Your task to perform on an android device: turn vacation reply on in the gmail app Image 0: 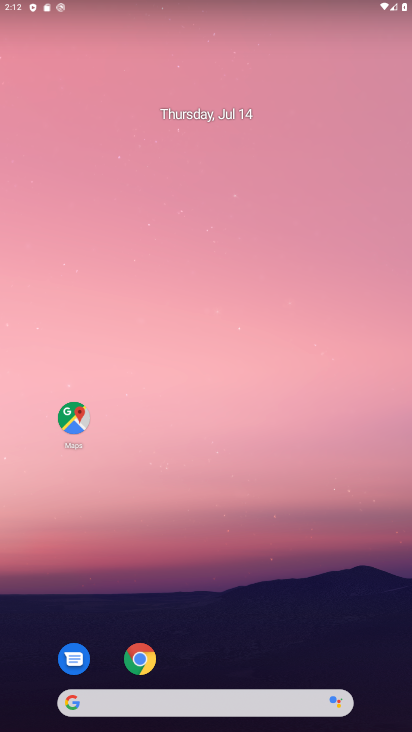
Step 0: press home button
Your task to perform on an android device: turn vacation reply on in the gmail app Image 1: 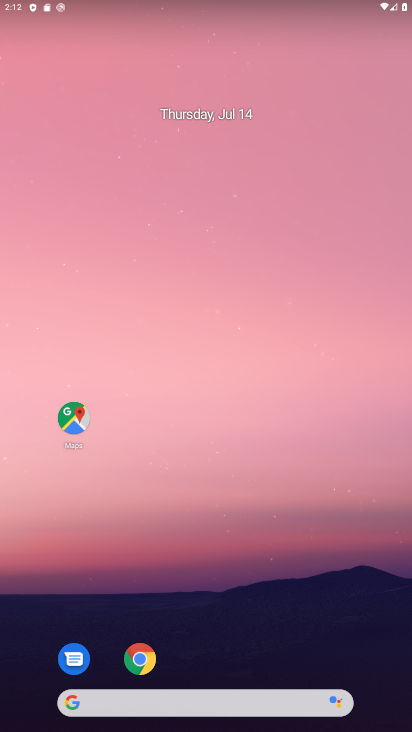
Step 1: drag from (246, 656) to (240, 563)
Your task to perform on an android device: turn vacation reply on in the gmail app Image 2: 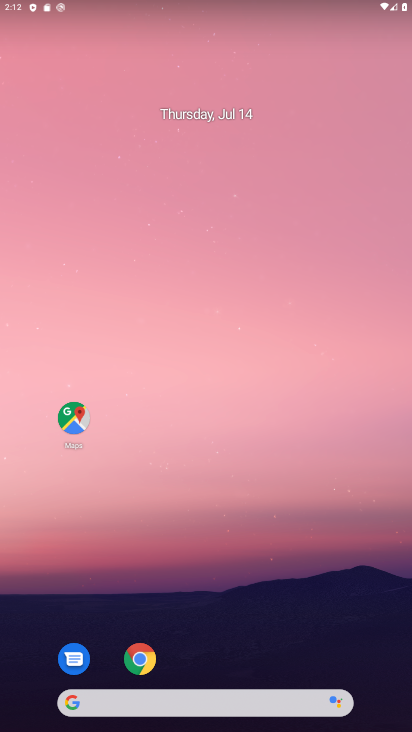
Step 2: drag from (255, 635) to (245, 118)
Your task to perform on an android device: turn vacation reply on in the gmail app Image 3: 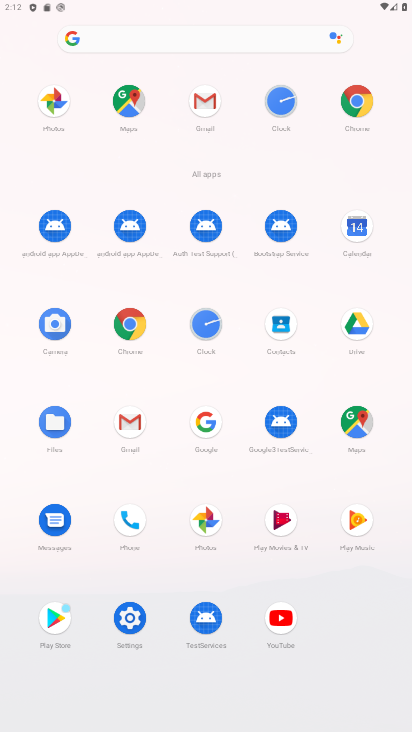
Step 3: click (211, 108)
Your task to perform on an android device: turn vacation reply on in the gmail app Image 4: 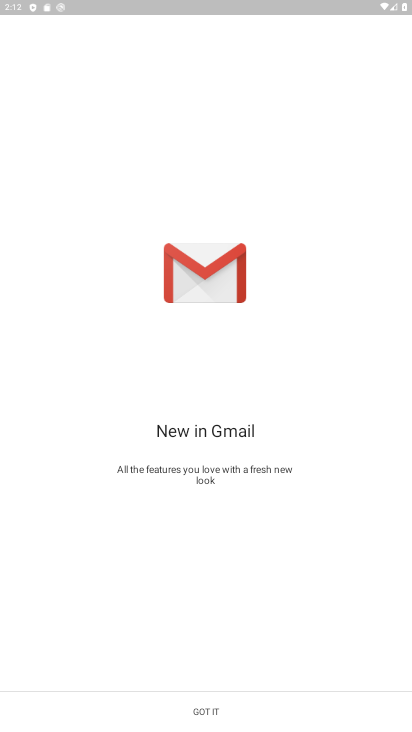
Step 4: click (196, 710)
Your task to perform on an android device: turn vacation reply on in the gmail app Image 5: 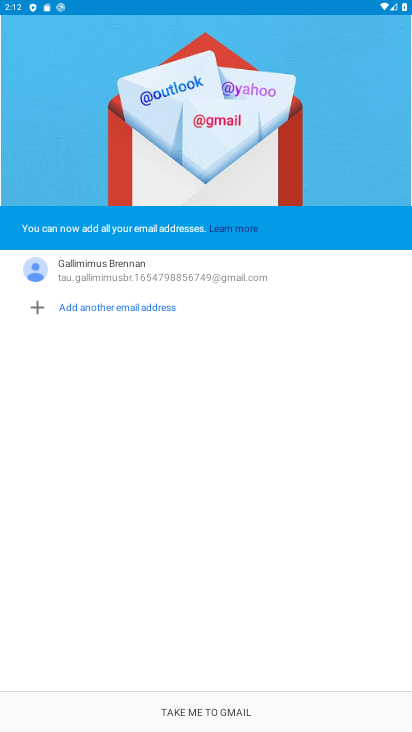
Step 5: click (196, 710)
Your task to perform on an android device: turn vacation reply on in the gmail app Image 6: 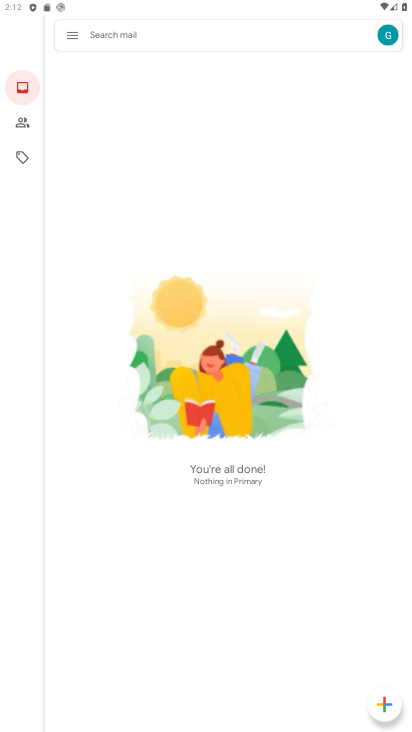
Step 6: click (74, 36)
Your task to perform on an android device: turn vacation reply on in the gmail app Image 7: 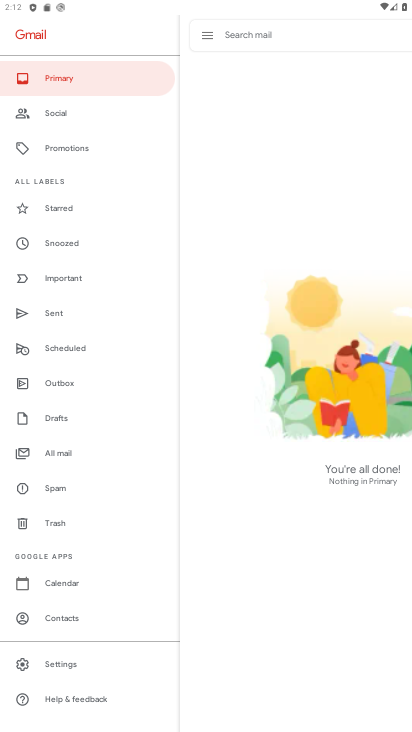
Step 7: click (55, 662)
Your task to perform on an android device: turn vacation reply on in the gmail app Image 8: 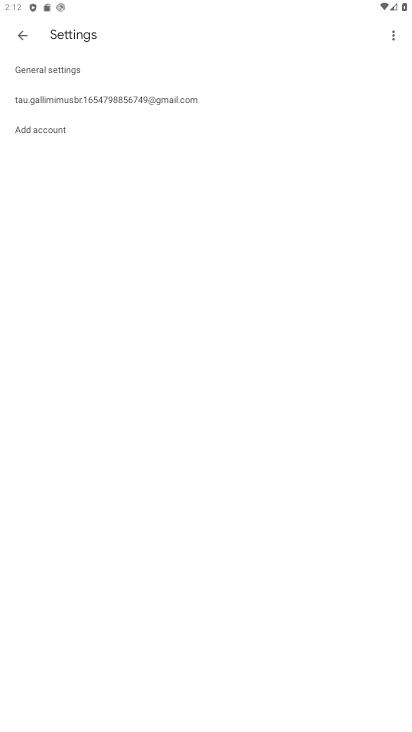
Step 8: click (81, 99)
Your task to perform on an android device: turn vacation reply on in the gmail app Image 9: 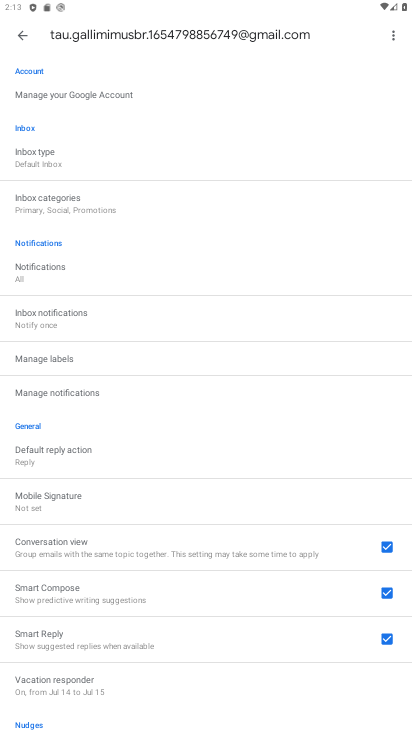
Step 9: drag from (180, 500) to (130, 115)
Your task to perform on an android device: turn vacation reply on in the gmail app Image 10: 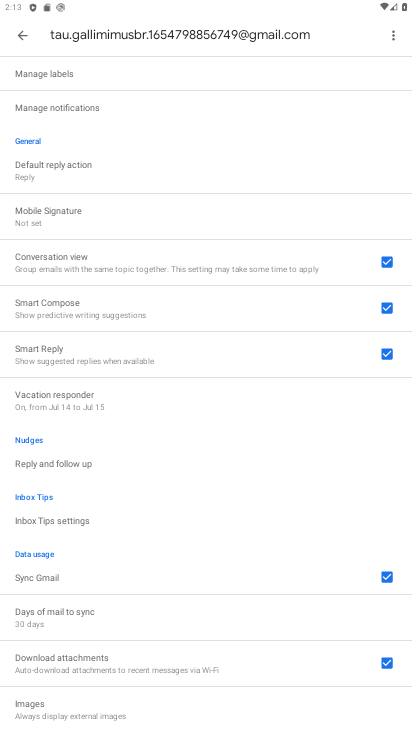
Step 10: click (57, 395)
Your task to perform on an android device: turn vacation reply on in the gmail app Image 11: 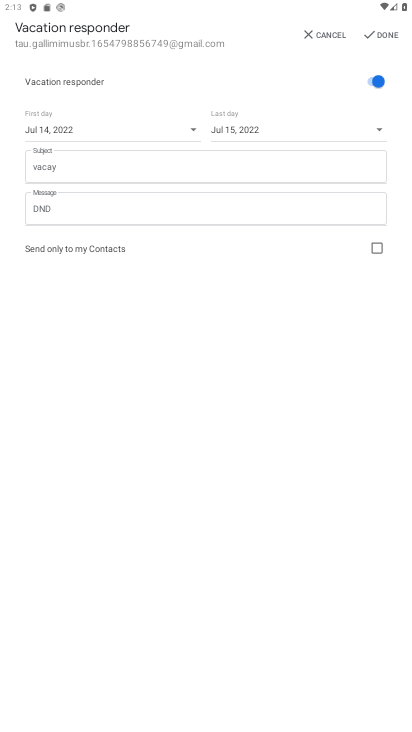
Step 11: task complete